Your task to perform on an android device: Open Chrome and go to the settings page Image 0: 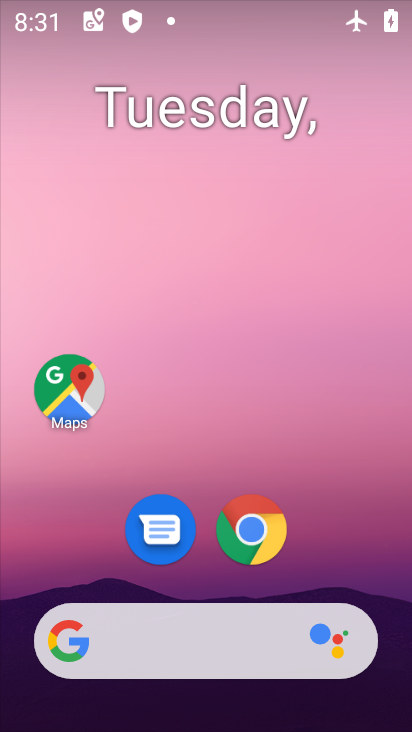
Step 0: drag from (218, 622) to (175, 68)
Your task to perform on an android device: Open Chrome and go to the settings page Image 1: 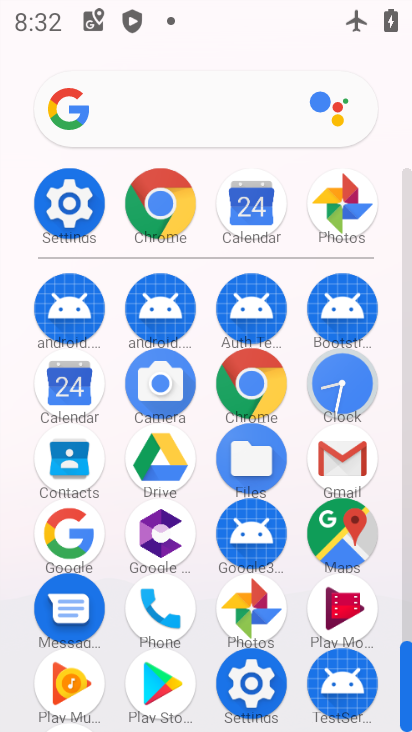
Step 1: click (148, 205)
Your task to perform on an android device: Open Chrome and go to the settings page Image 2: 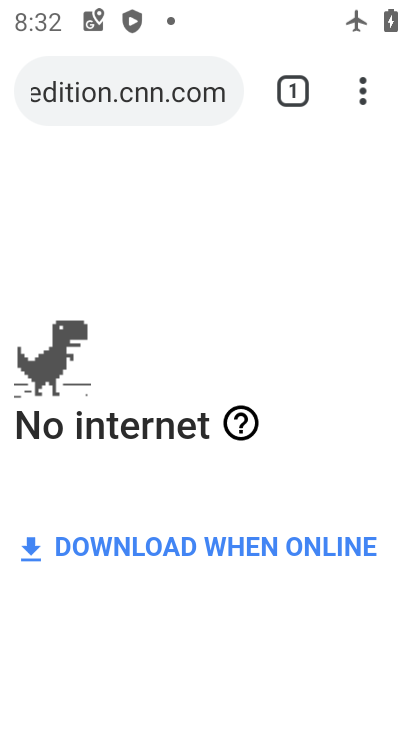
Step 2: click (366, 106)
Your task to perform on an android device: Open Chrome and go to the settings page Image 3: 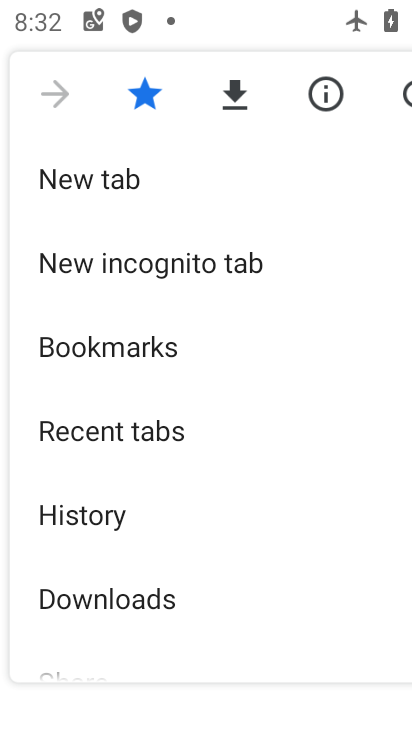
Step 3: drag from (156, 559) to (143, 96)
Your task to perform on an android device: Open Chrome and go to the settings page Image 4: 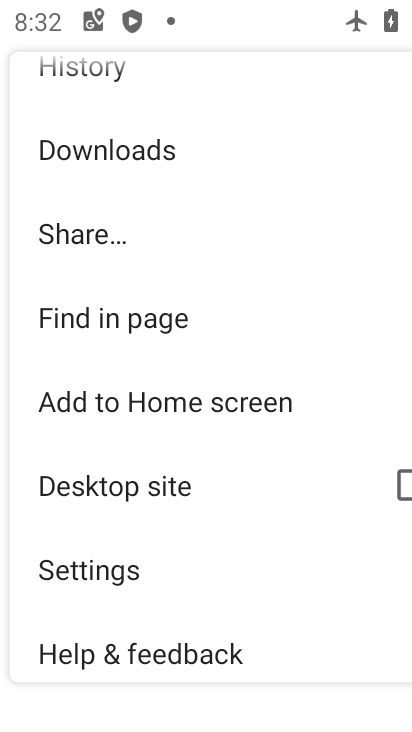
Step 4: click (109, 566)
Your task to perform on an android device: Open Chrome and go to the settings page Image 5: 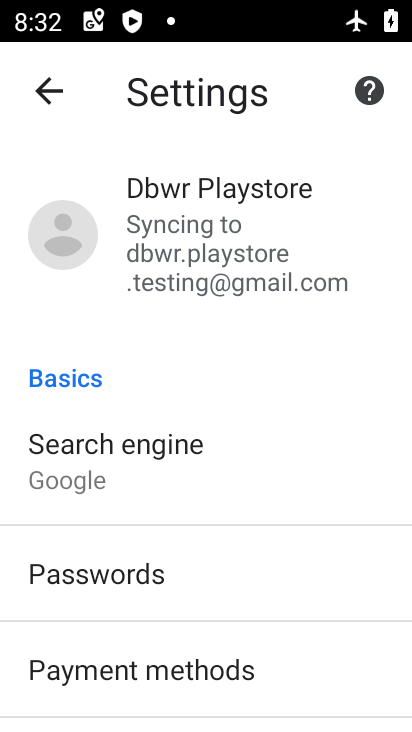
Step 5: task complete